Your task to perform on an android device: turn off data saver in the chrome app Image 0: 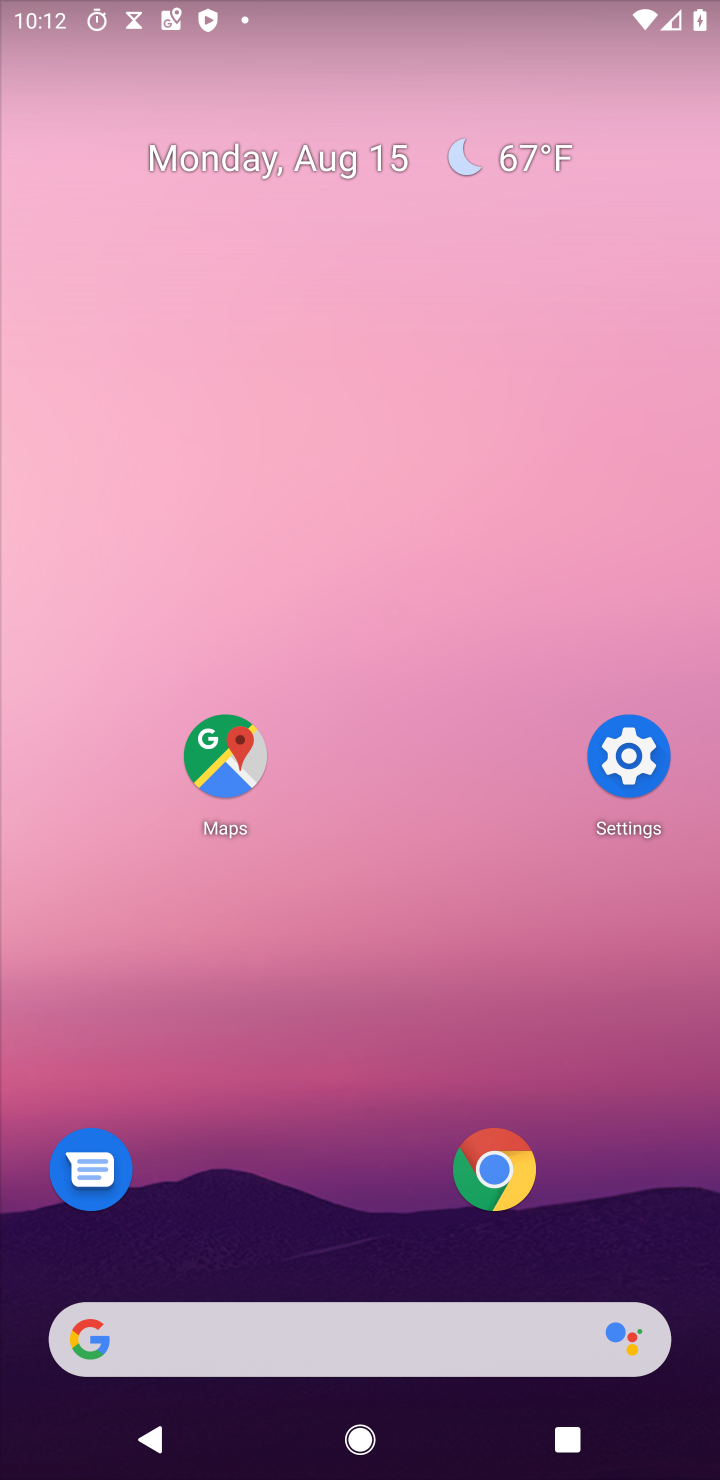
Step 0: click (503, 1171)
Your task to perform on an android device: turn off data saver in the chrome app Image 1: 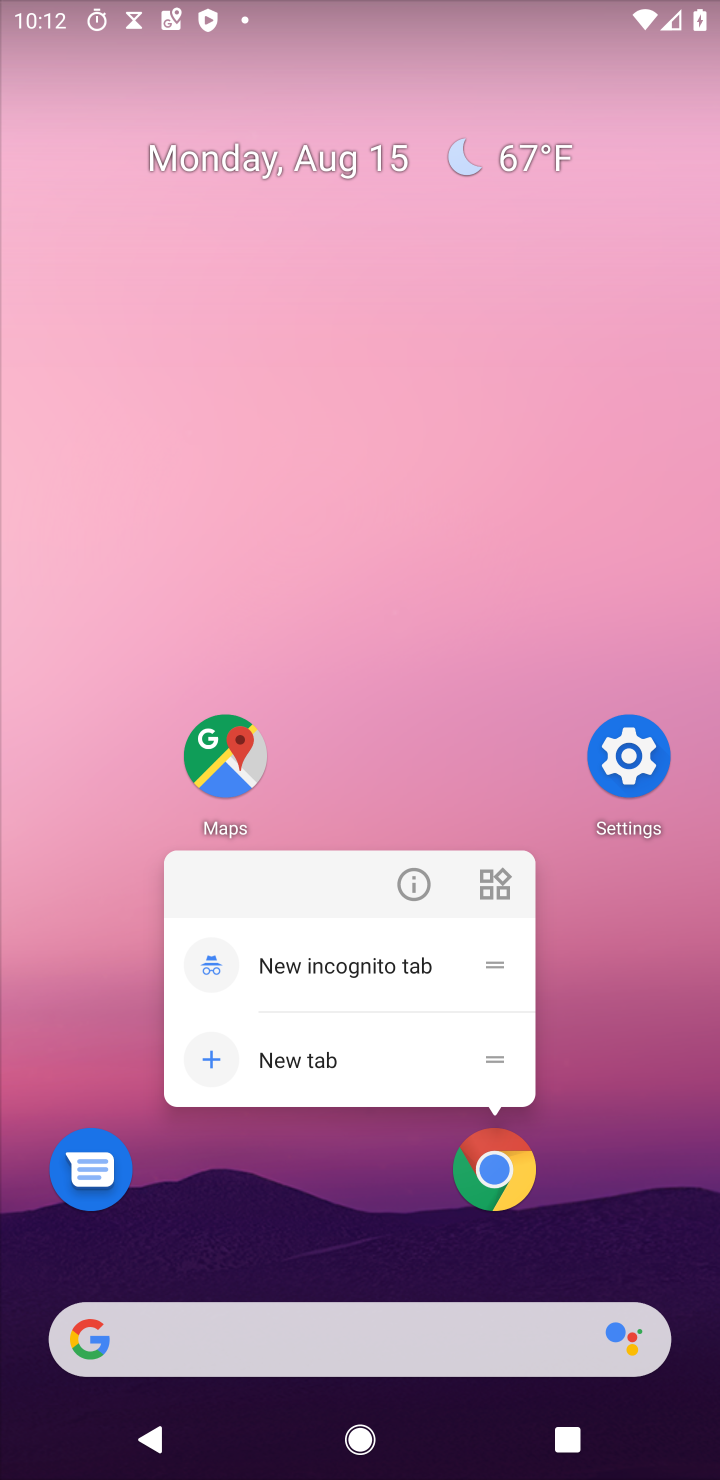
Step 1: click (503, 1175)
Your task to perform on an android device: turn off data saver in the chrome app Image 2: 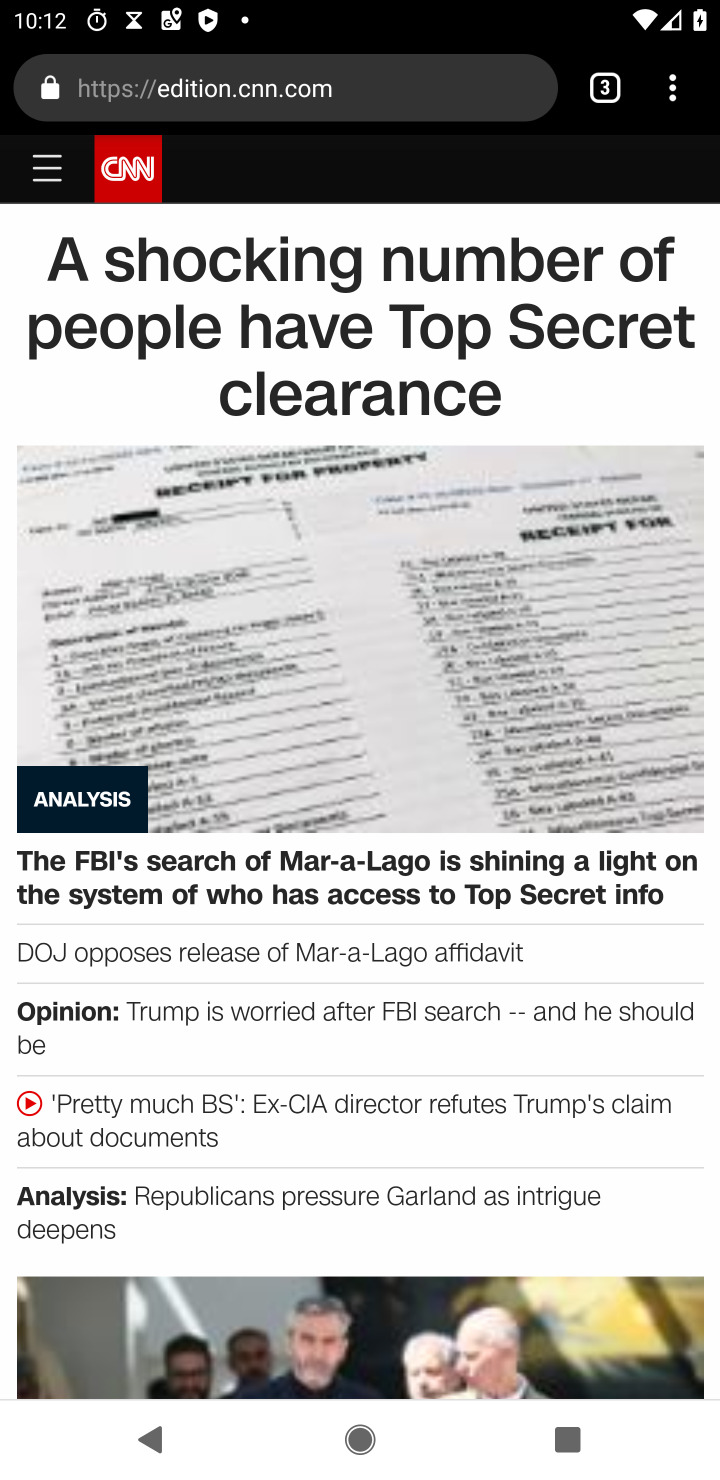
Step 2: drag from (687, 89) to (428, 978)
Your task to perform on an android device: turn off data saver in the chrome app Image 3: 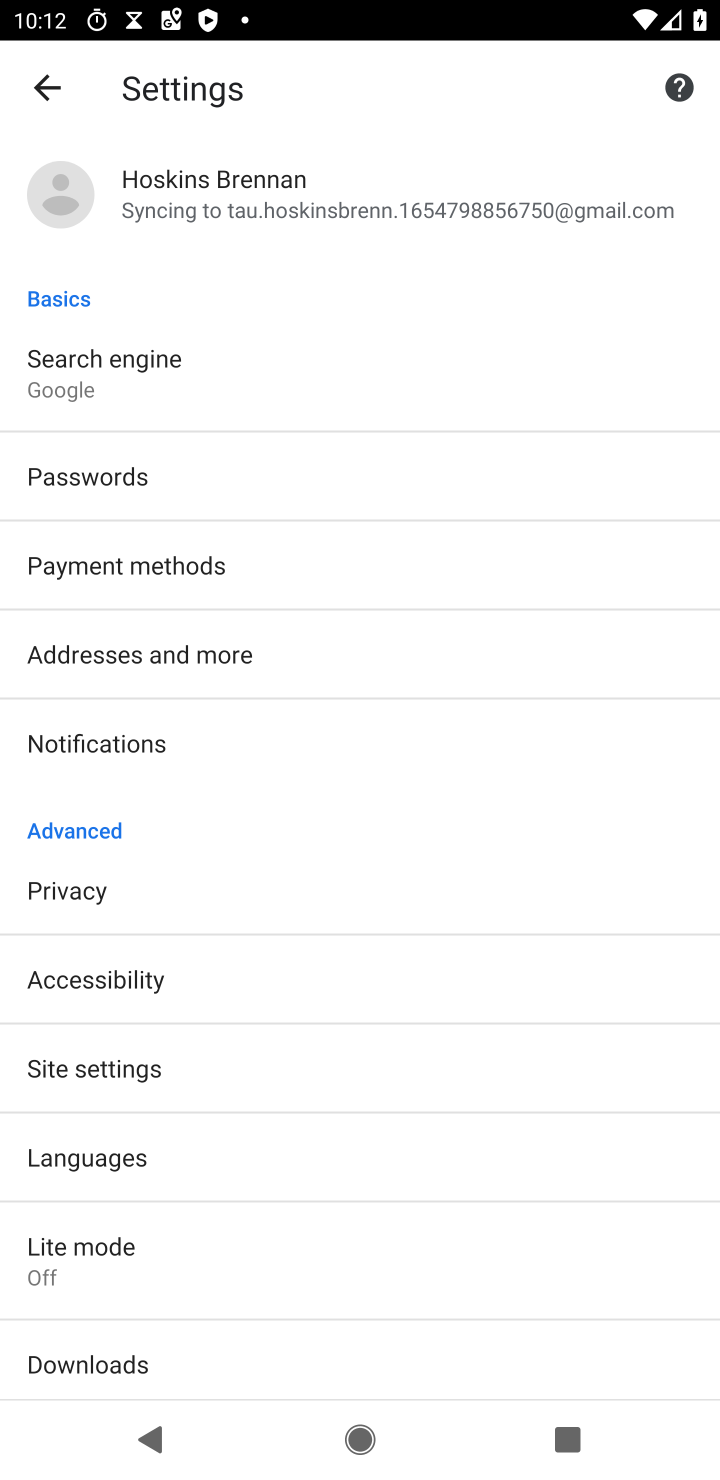
Step 3: click (134, 1245)
Your task to perform on an android device: turn off data saver in the chrome app Image 4: 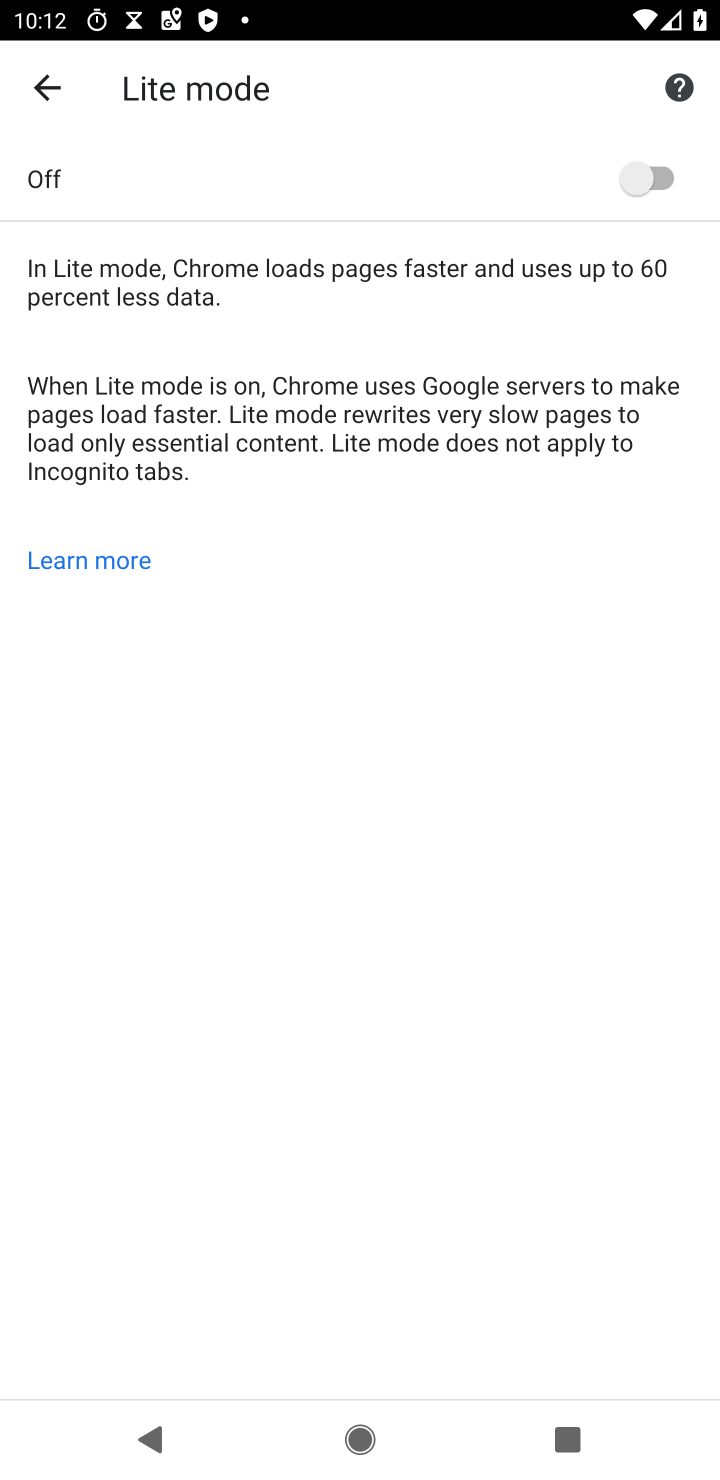
Step 4: task complete